Your task to perform on an android device: Do I have any events today? Image 0: 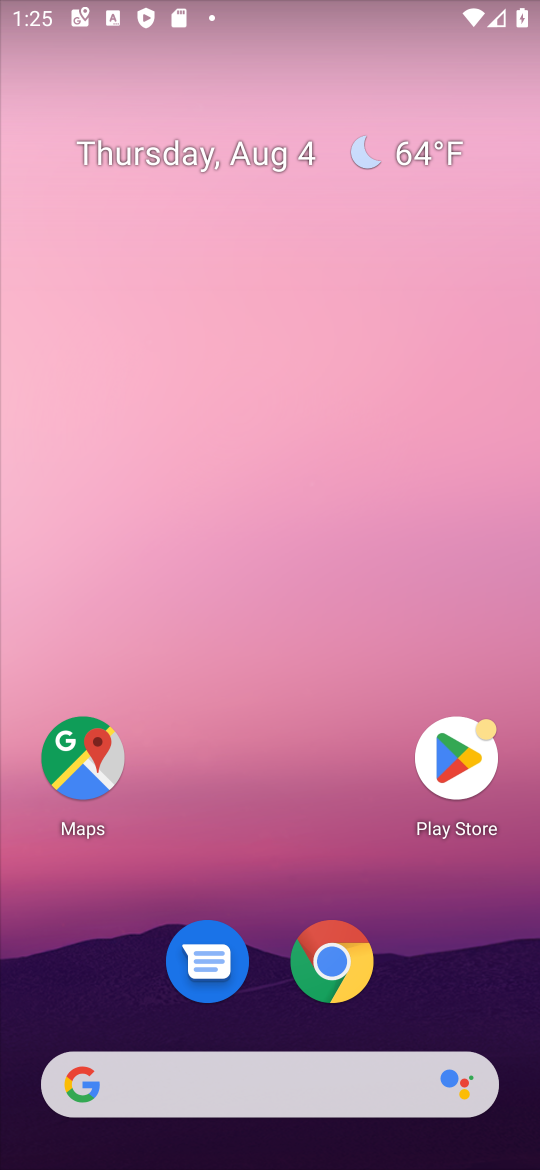
Step 0: drag from (305, 579) to (315, 13)
Your task to perform on an android device: Do I have any events today? Image 1: 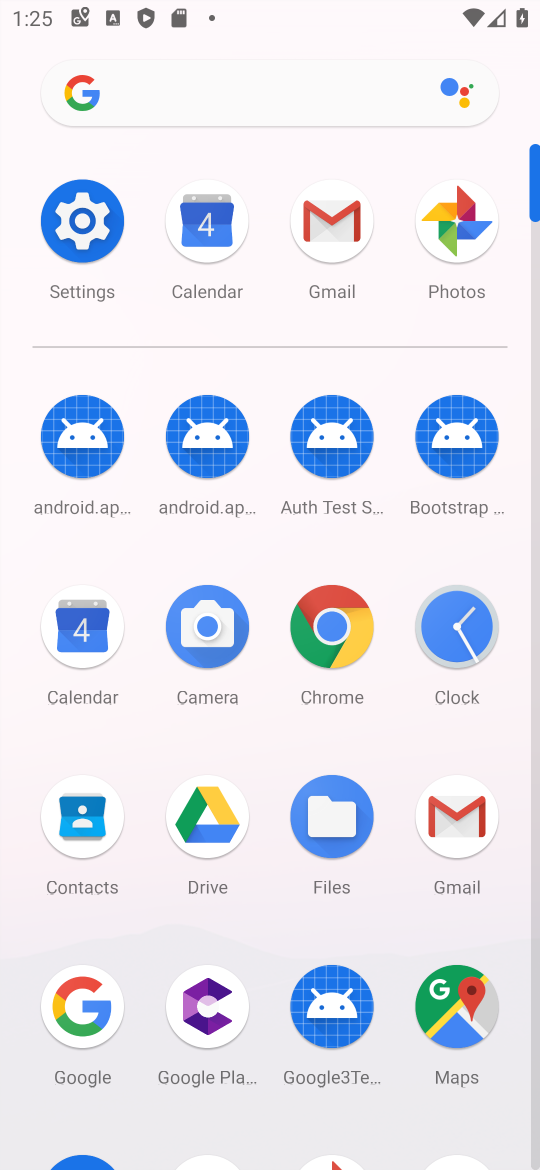
Step 1: click (101, 629)
Your task to perform on an android device: Do I have any events today? Image 2: 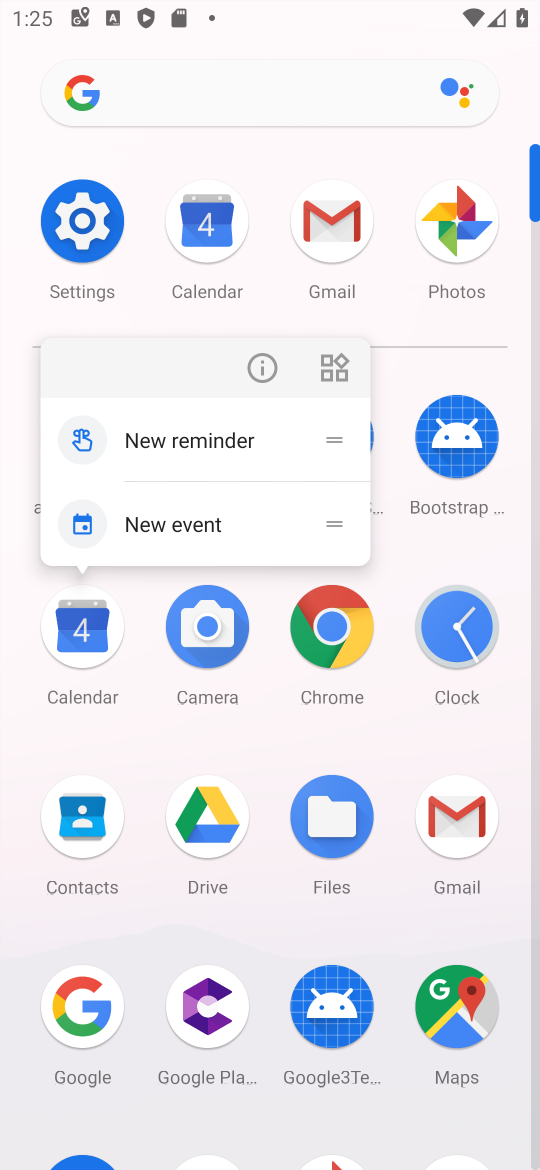
Step 2: click (105, 639)
Your task to perform on an android device: Do I have any events today? Image 3: 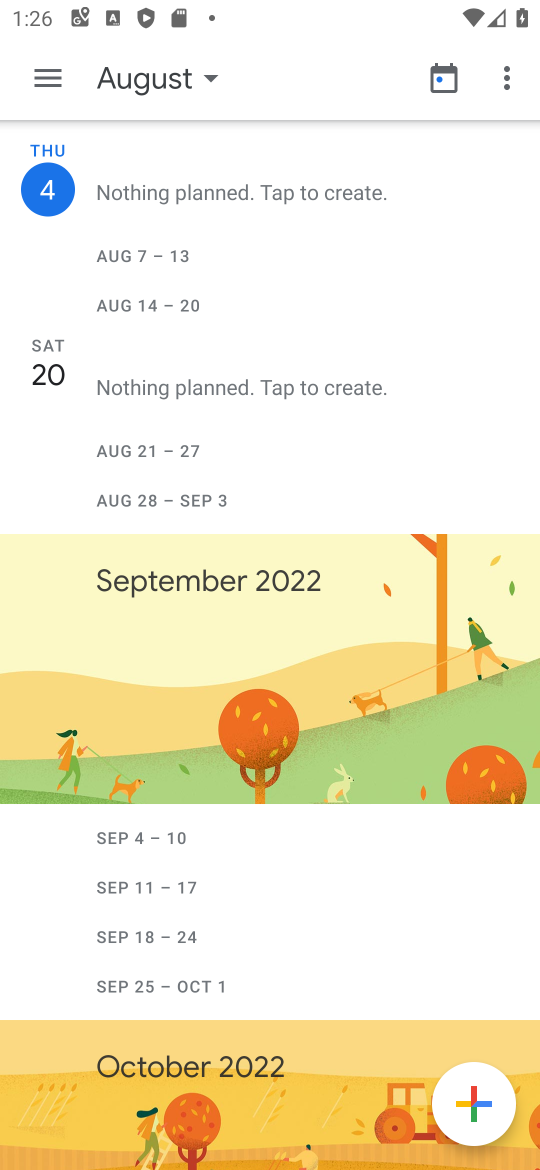
Step 3: task complete